Your task to perform on an android device: check the backup settings in the google photos Image 0: 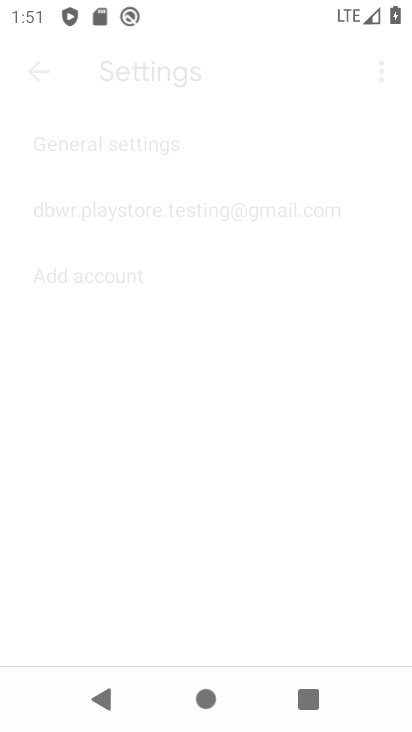
Step 0: drag from (296, 673) to (181, 130)
Your task to perform on an android device: check the backup settings in the google photos Image 1: 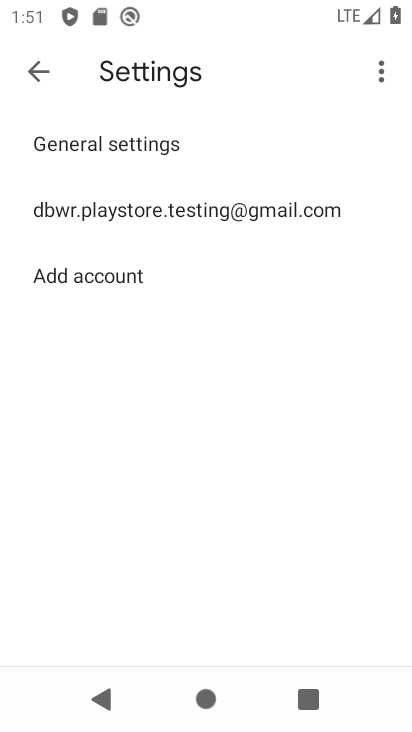
Step 1: click (31, 61)
Your task to perform on an android device: check the backup settings in the google photos Image 2: 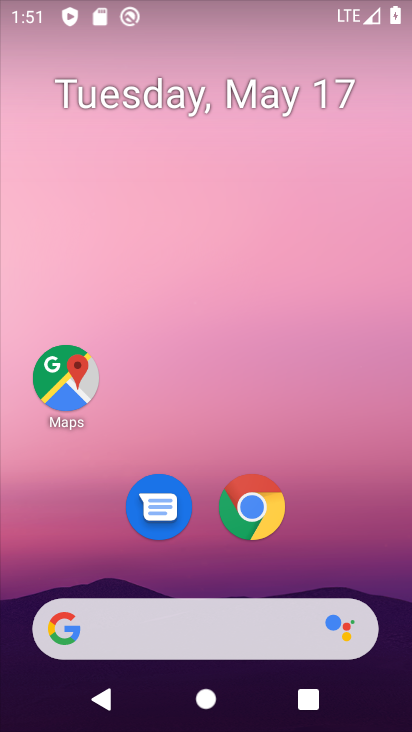
Step 2: drag from (226, 720) to (186, 139)
Your task to perform on an android device: check the backup settings in the google photos Image 3: 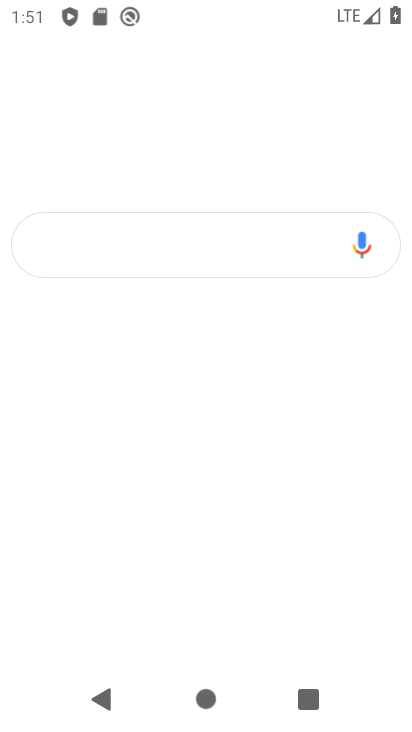
Step 3: drag from (320, 619) to (205, 137)
Your task to perform on an android device: check the backup settings in the google photos Image 4: 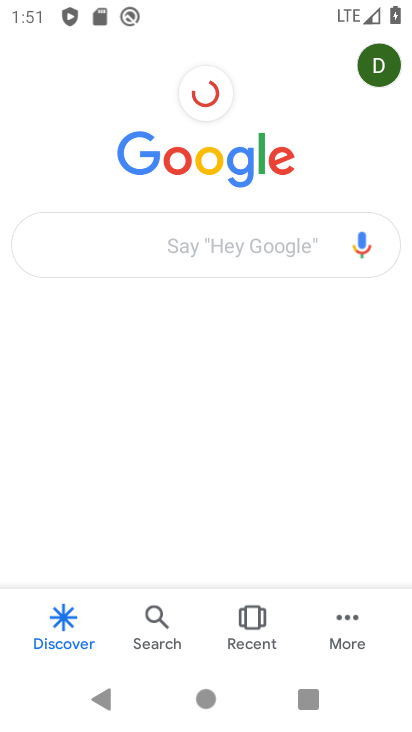
Step 4: press home button
Your task to perform on an android device: check the backup settings in the google photos Image 5: 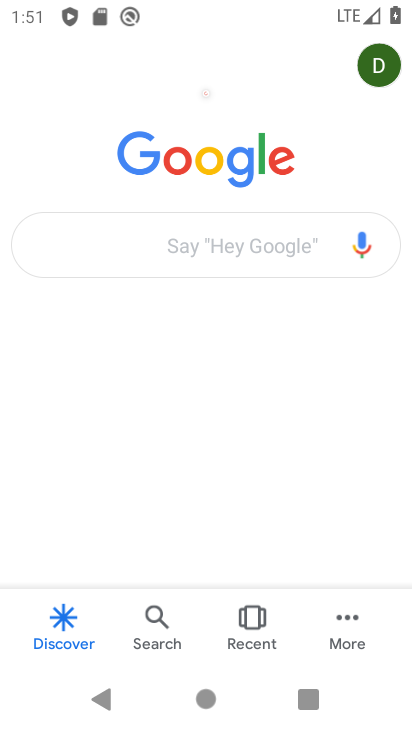
Step 5: press home button
Your task to perform on an android device: check the backup settings in the google photos Image 6: 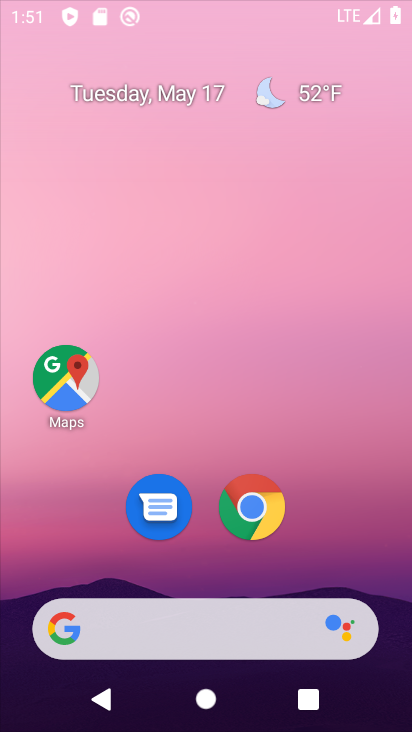
Step 6: press home button
Your task to perform on an android device: check the backup settings in the google photos Image 7: 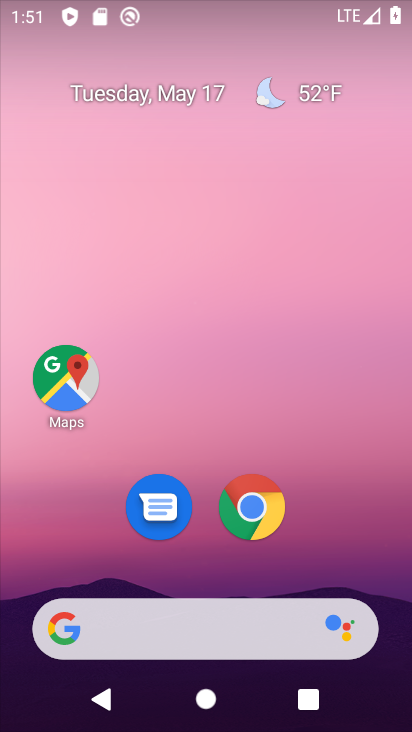
Step 7: drag from (266, 551) to (82, 2)
Your task to perform on an android device: check the backup settings in the google photos Image 8: 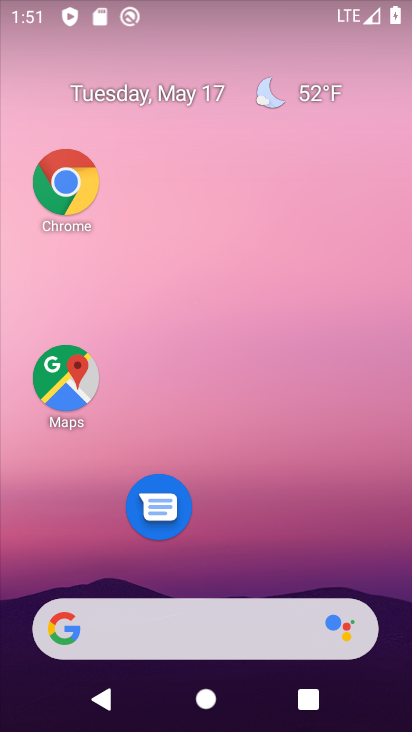
Step 8: drag from (331, 555) to (151, 6)
Your task to perform on an android device: check the backup settings in the google photos Image 9: 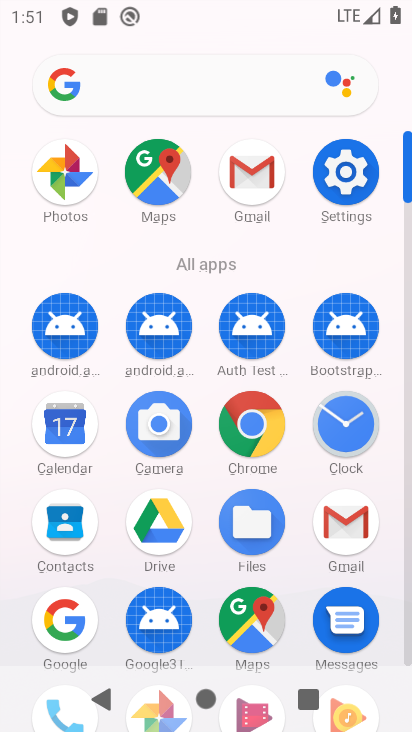
Step 9: drag from (303, 507) to (237, 35)
Your task to perform on an android device: check the backup settings in the google photos Image 10: 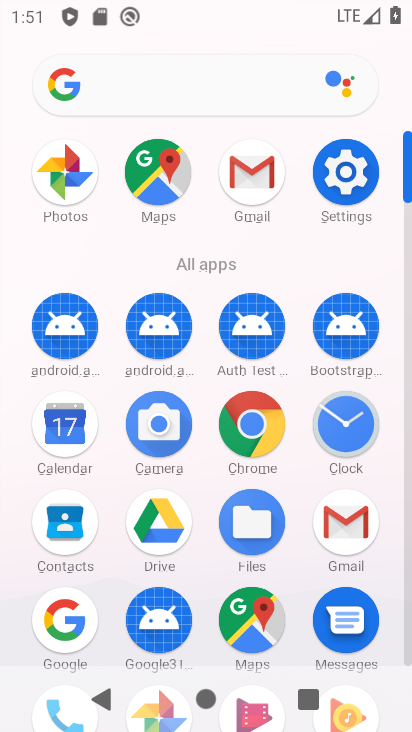
Step 10: click (65, 181)
Your task to perform on an android device: check the backup settings in the google photos Image 11: 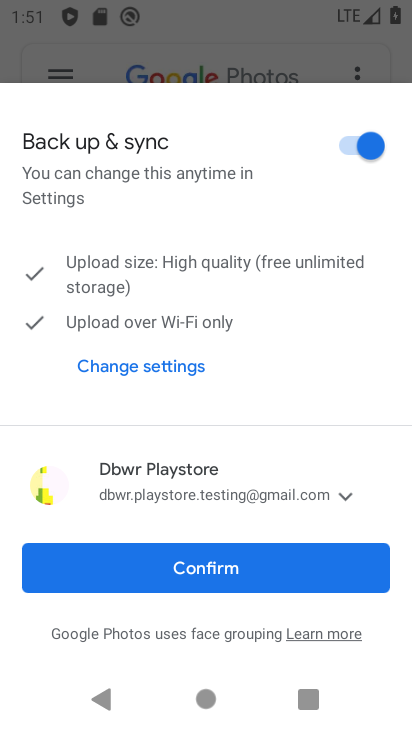
Step 11: click (240, 564)
Your task to perform on an android device: check the backup settings in the google photos Image 12: 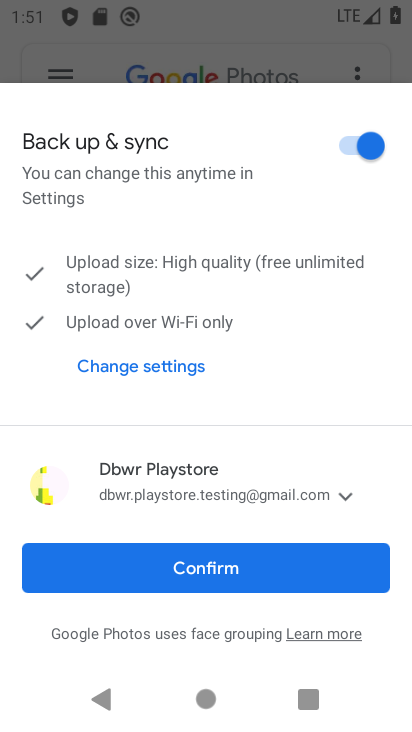
Step 12: click (235, 564)
Your task to perform on an android device: check the backup settings in the google photos Image 13: 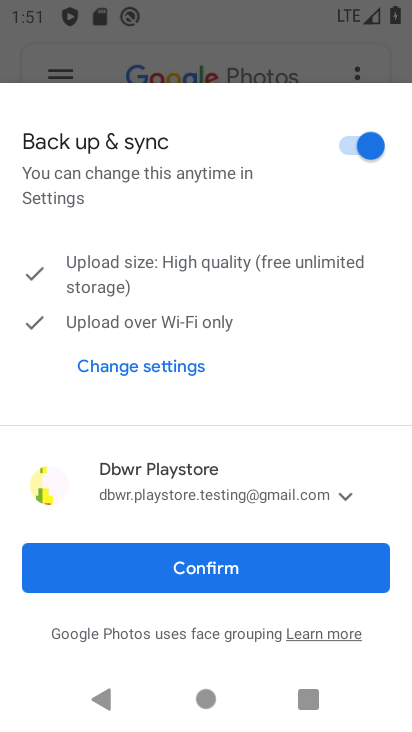
Step 13: click (235, 564)
Your task to perform on an android device: check the backup settings in the google photos Image 14: 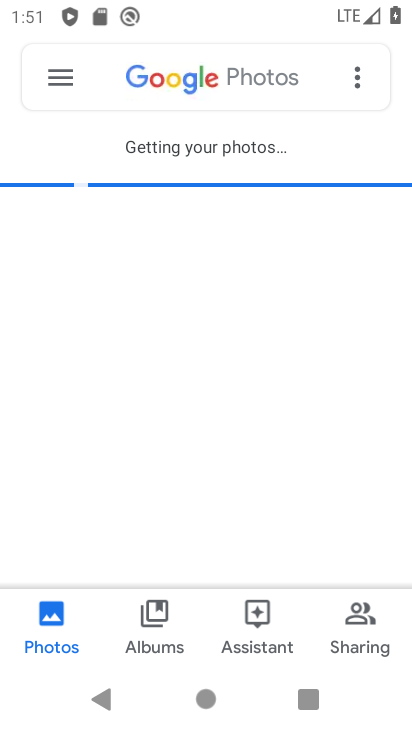
Step 14: click (235, 564)
Your task to perform on an android device: check the backup settings in the google photos Image 15: 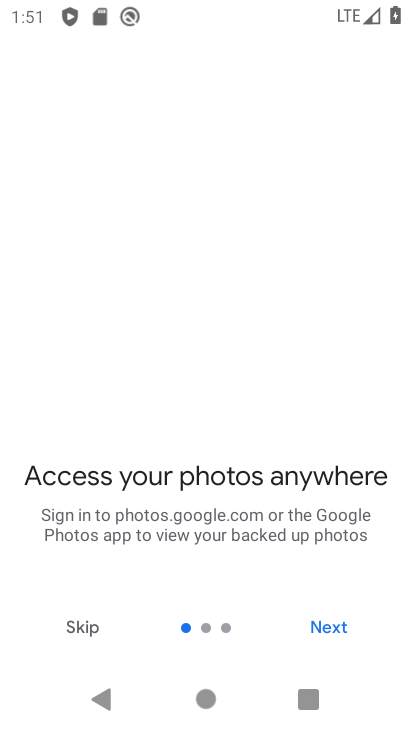
Step 15: click (316, 629)
Your task to perform on an android device: check the backup settings in the google photos Image 16: 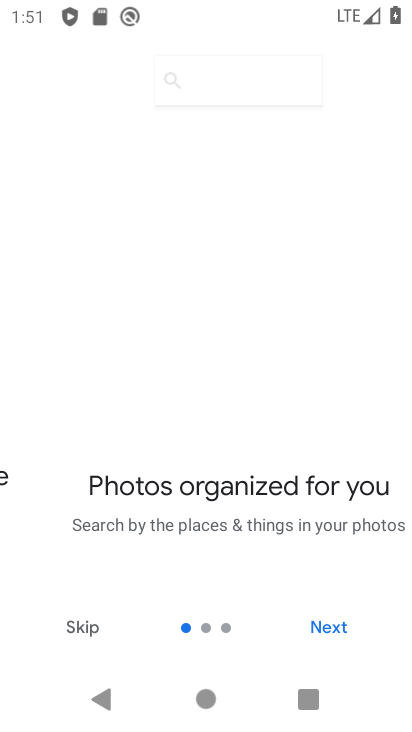
Step 16: click (316, 628)
Your task to perform on an android device: check the backup settings in the google photos Image 17: 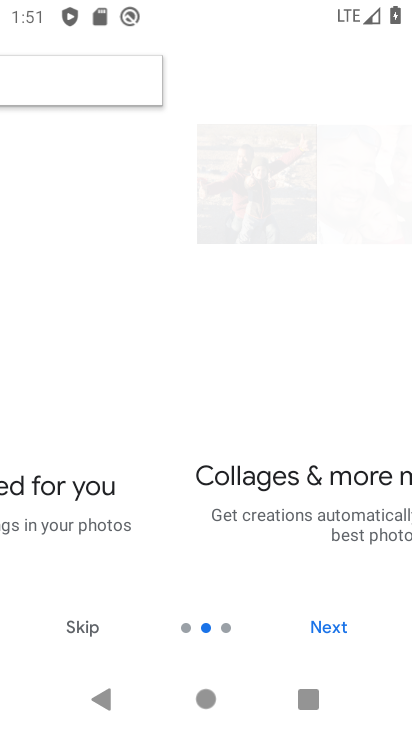
Step 17: click (317, 627)
Your task to perform on an android device: check the backup settings in the google photos Image 18: 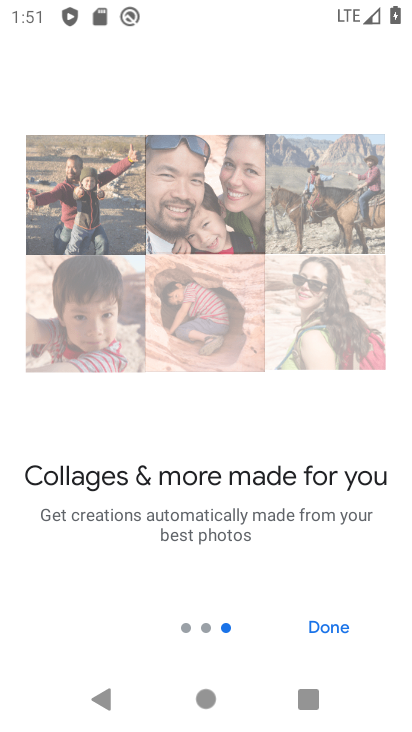
Step 18: click (318, 626)
Your task to perform on an android device: check the backup settings in the google photos Image 19: 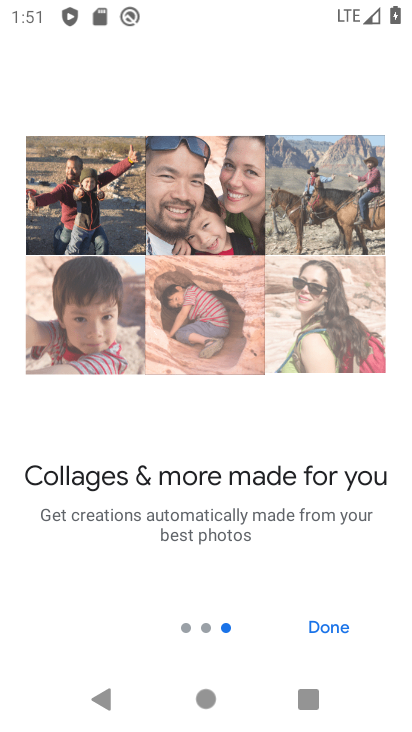
Step 19: click (328, 619)
Your task to perform on an android device: check the backup settings in the google photos Image 20: 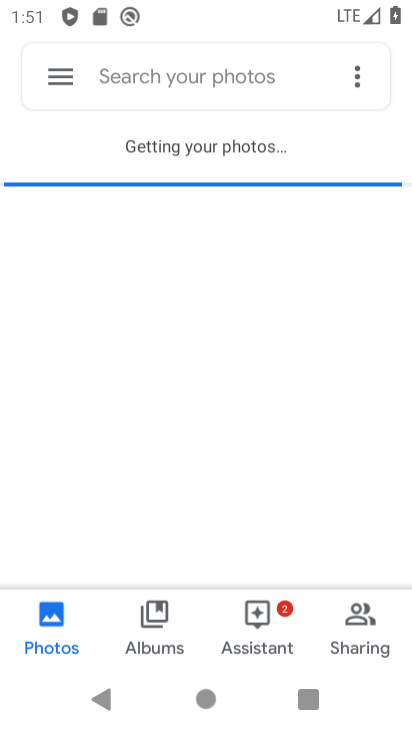
Step 20: click (321, 626)
Your task to perform on an android device: check the backup settings in the google photos Image 21: 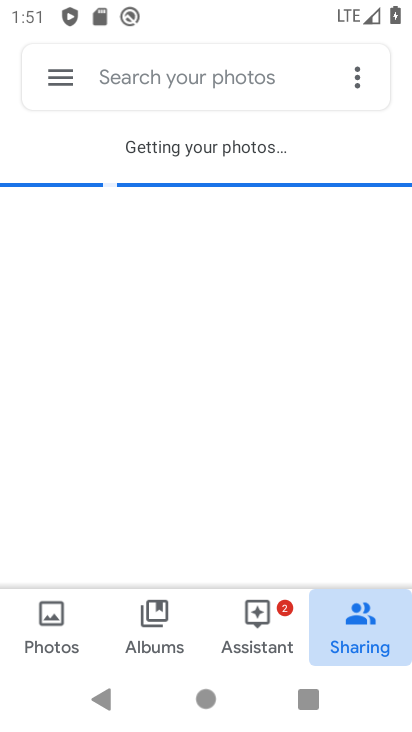
Step 21: click (320, 629)
Your task to perform on an android device: check the backup settings in the google photos Image 22: 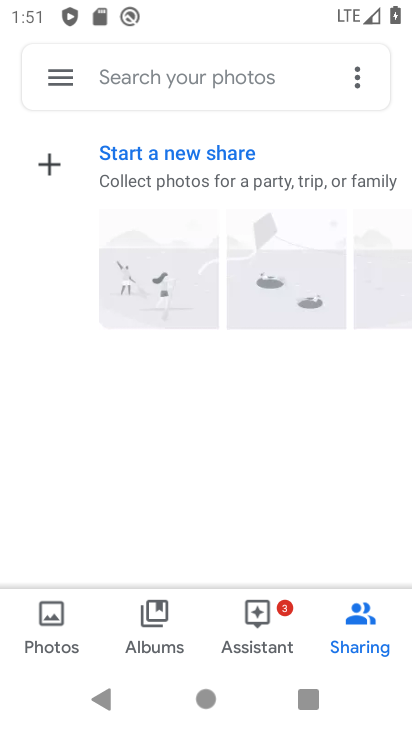
Step 22: click (350, 78)
Your task to perform on an android device: check the backup settings in the google photos Image 23: 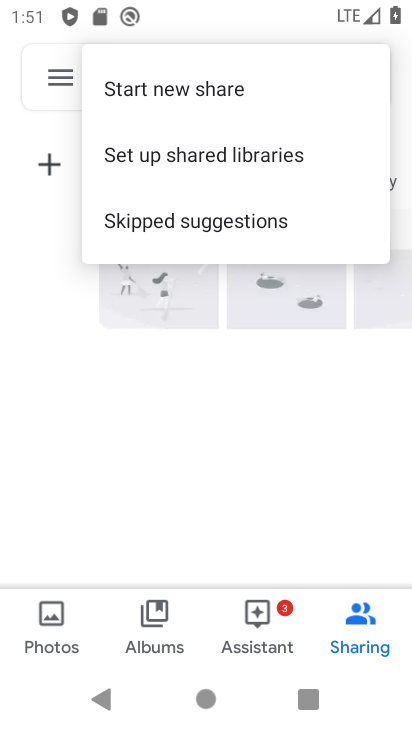
Step 23: click (164, 430)
Your task to perform on an android device: check the backup settings in the google photos Image 24: 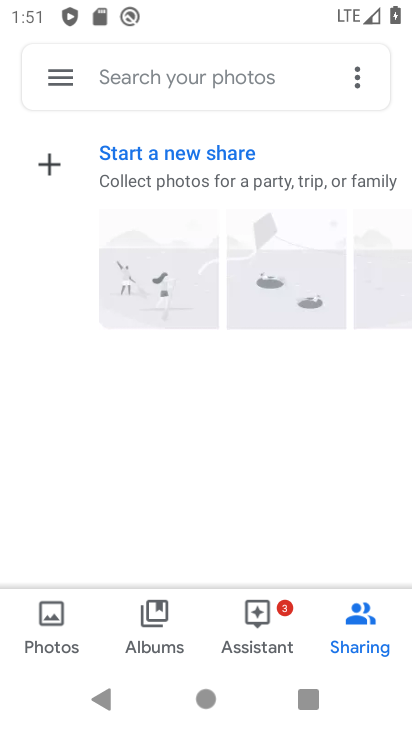
Step 24: click (60, 77)
Your task to perform on an android device: check the backup settings in the google photos Image 25: 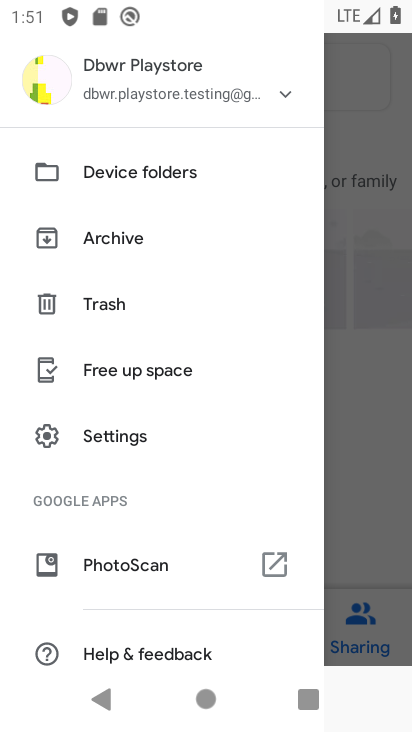
Step 25: click (312, 442)
Your task to perform on an android device: check the backup settings in the google photos Image 26: 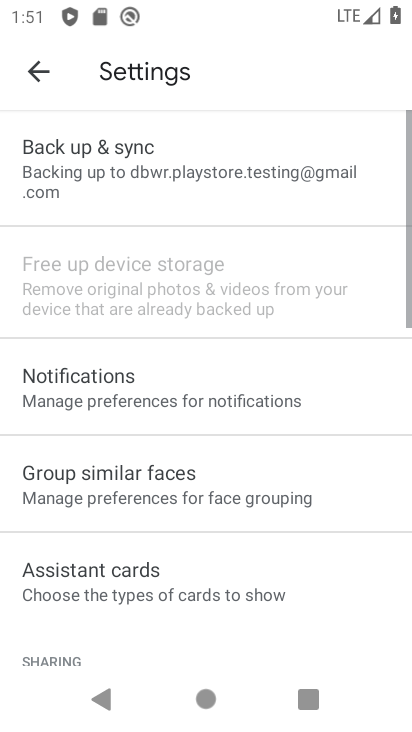
Step 26: task complete